Your task to perform on an android device: change notification settings in the gmail app Image 0: 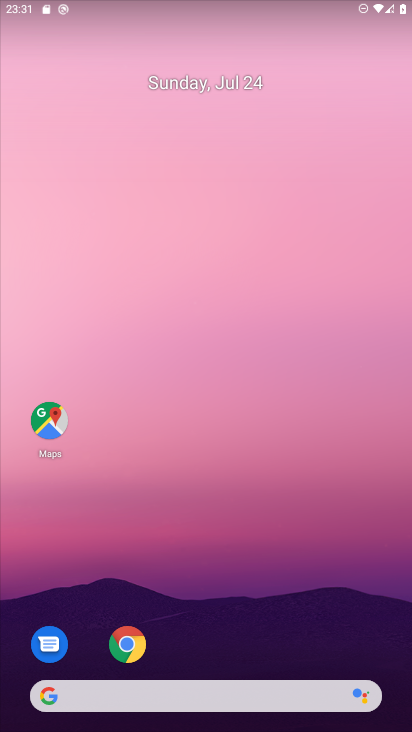
Step 0: drag from (364, 649) to (346, 104)
Your task to perform on an android device: change notification settings in the gmail app Image 1: 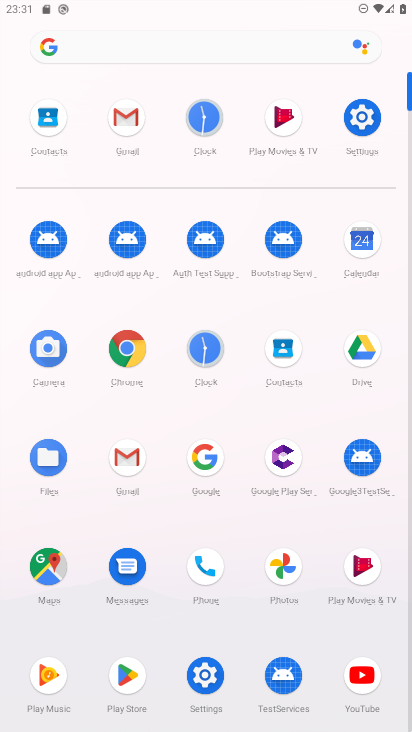
Step 1: click (125, 456)
Your task to perform on an android device: change notification settings in the gmail app Image 2: 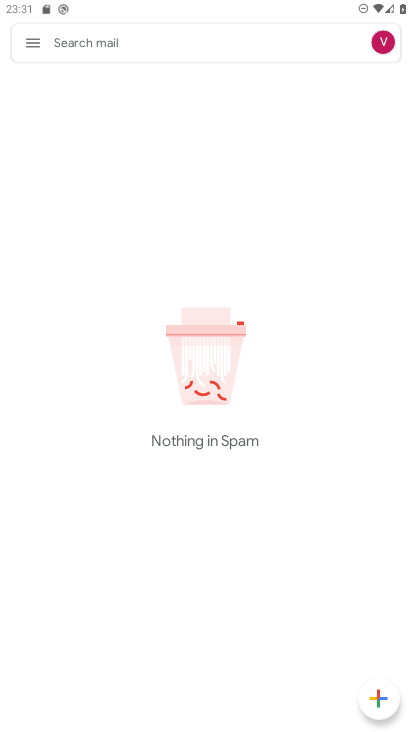
Step 2: click (31, 45)
Your task to perform on an android device: change notification settings in the gmail app Image 3: 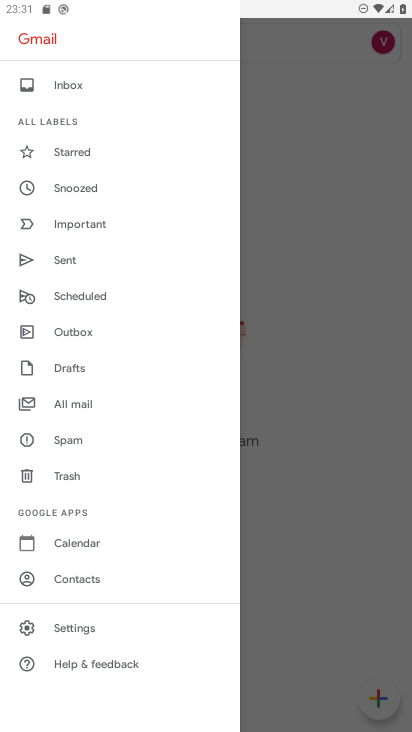
Step 3: click (71, 624)
Your task to perform on an android device: change notification settings in the gmail app Image 4: 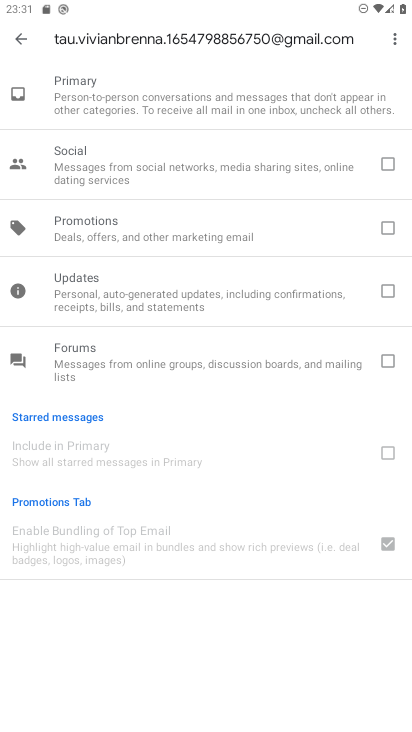
Step 4: press back button
Your task to perform on an android device: change notification settings in the gmail app Image 5: 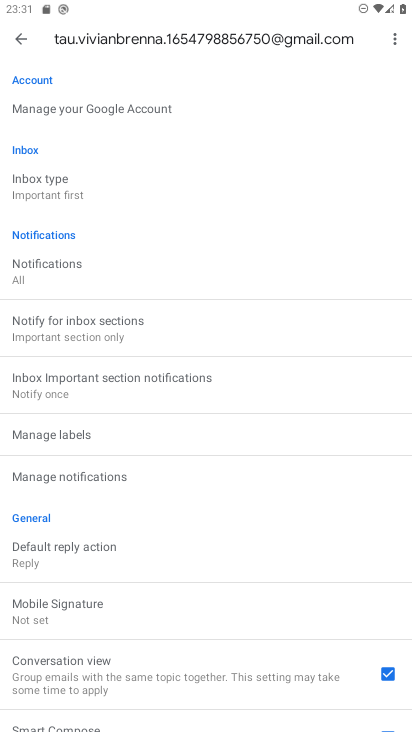
Step 5: click (78, 467)
Your task to perform on an android device: change notification settings in the gmail app Image 6: 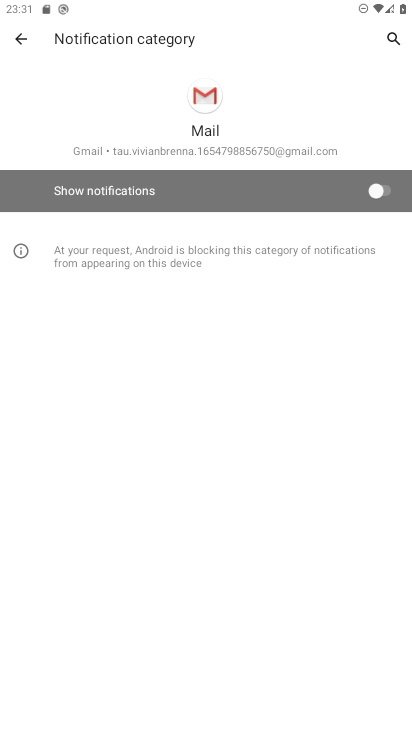
Step 6: click (386, 190)
Your task to perform on an android device: change notification settings in the gmail app Image 7: 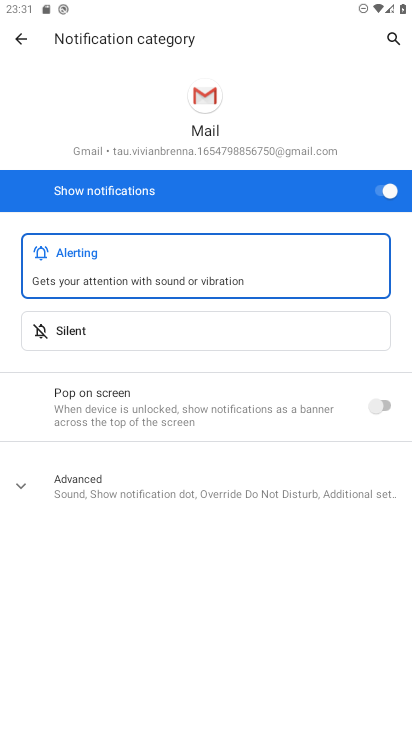
Step 7: task complete